Your task to perform on an android device: Show the shopping cart on amazon.com. Image 0: 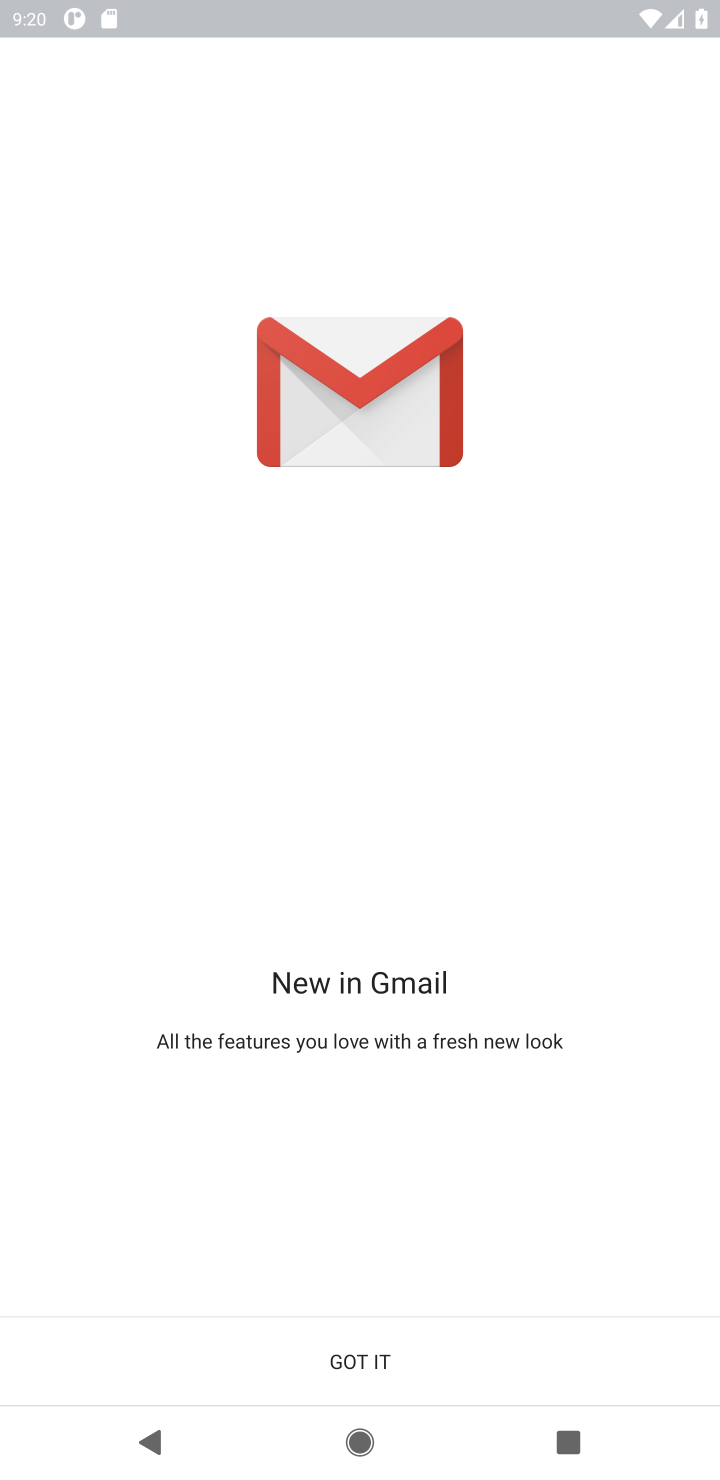
Step 0: press home button
Your task to perform on an android device: Show the shopping cart on amazon.com. Image 1: 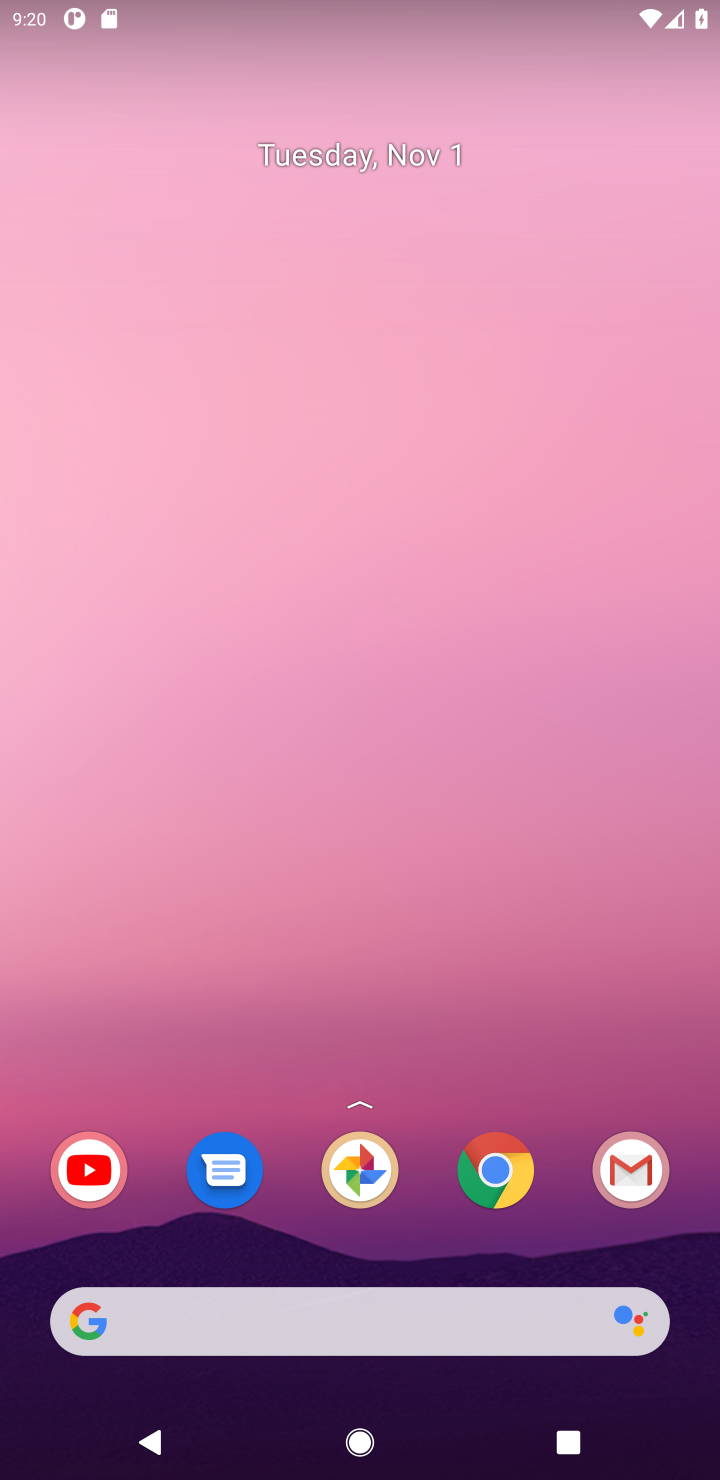
Step 1: click (527, 1183)
Your task to perform on an android device: Show the shopping cart on amazon.com. Image 2: 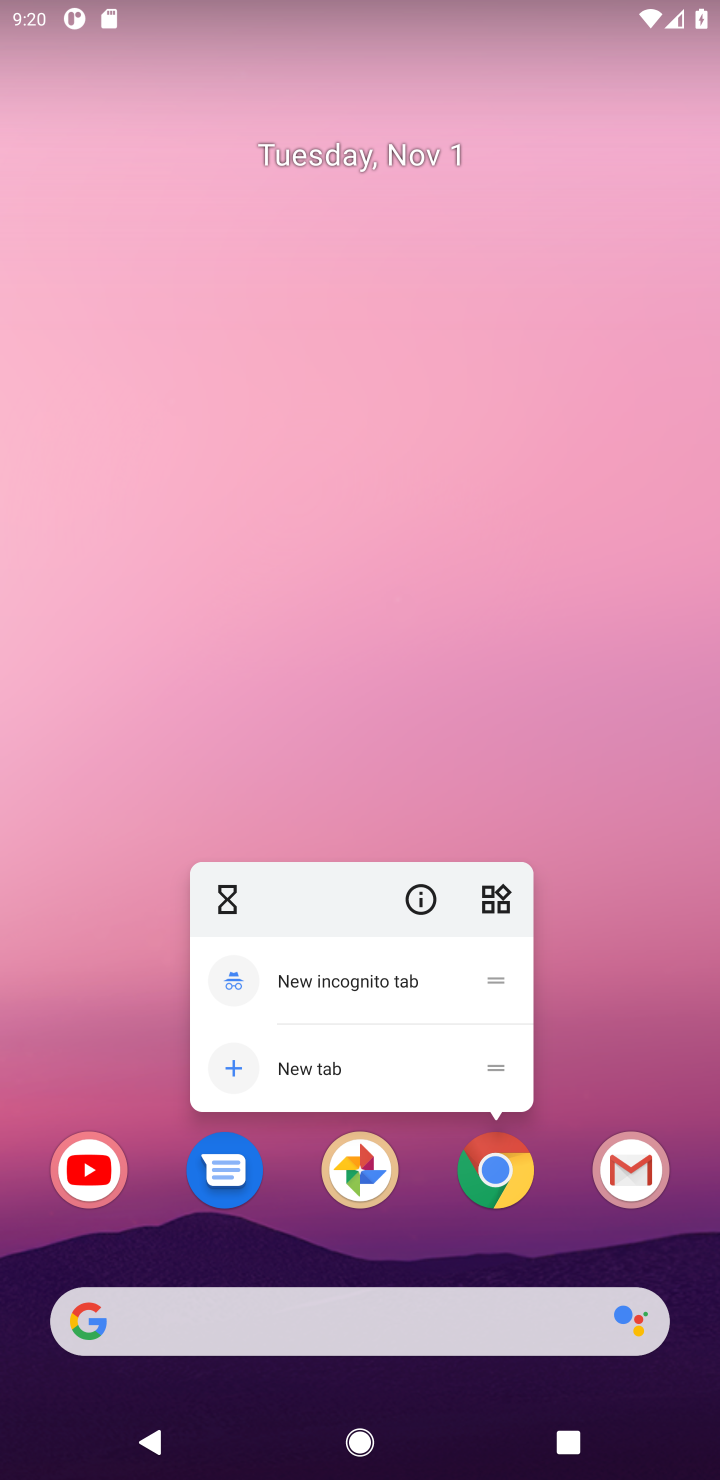
Step 2: click (500, 1184)
Your task to perform on an android device: Show the shopping cart on amazon.com. Image 3: 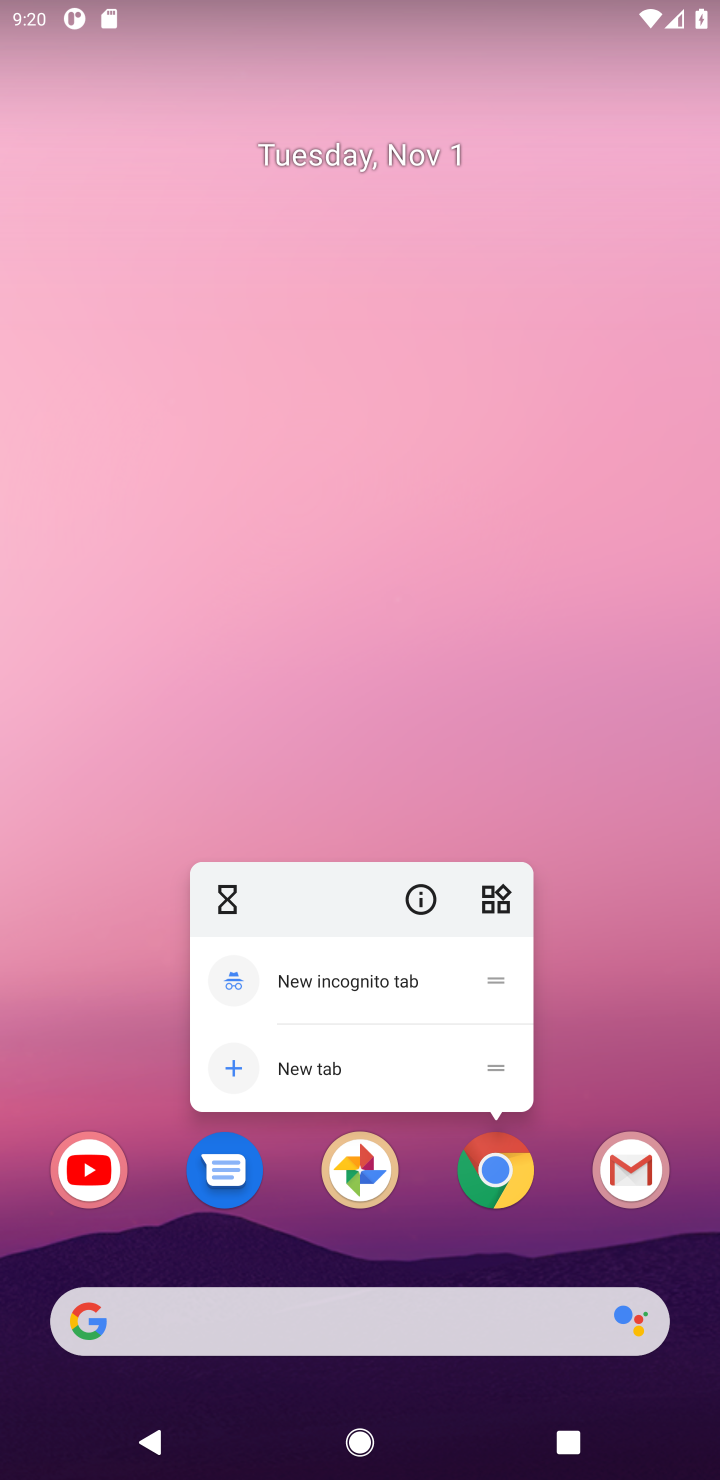
Step 3: click (497, 1193)
Your task to perform on an android device: Show the shopping cart on amazon.com. Image 4: 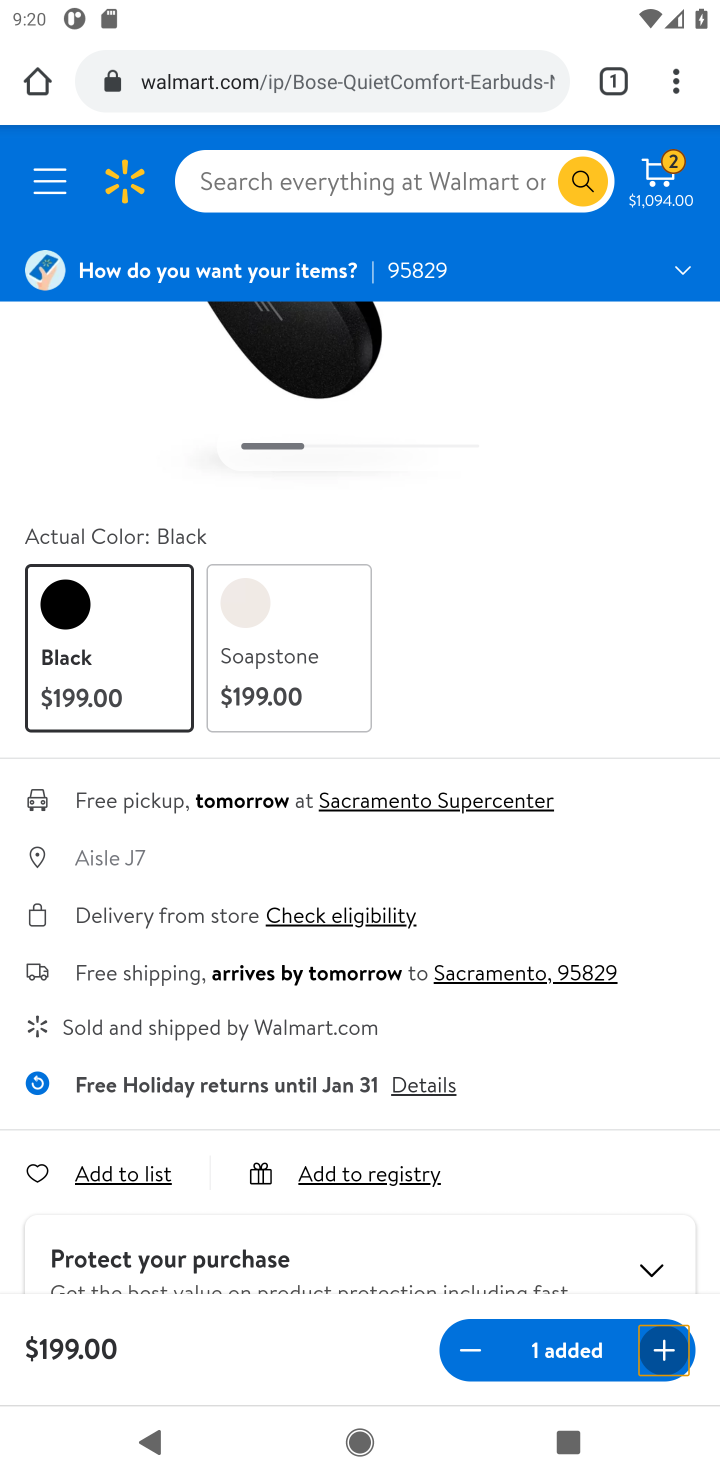
Step 4: click (296, 91)
Your task to perform on an android device: Show the shopping cart on amazon.com. Image 5: 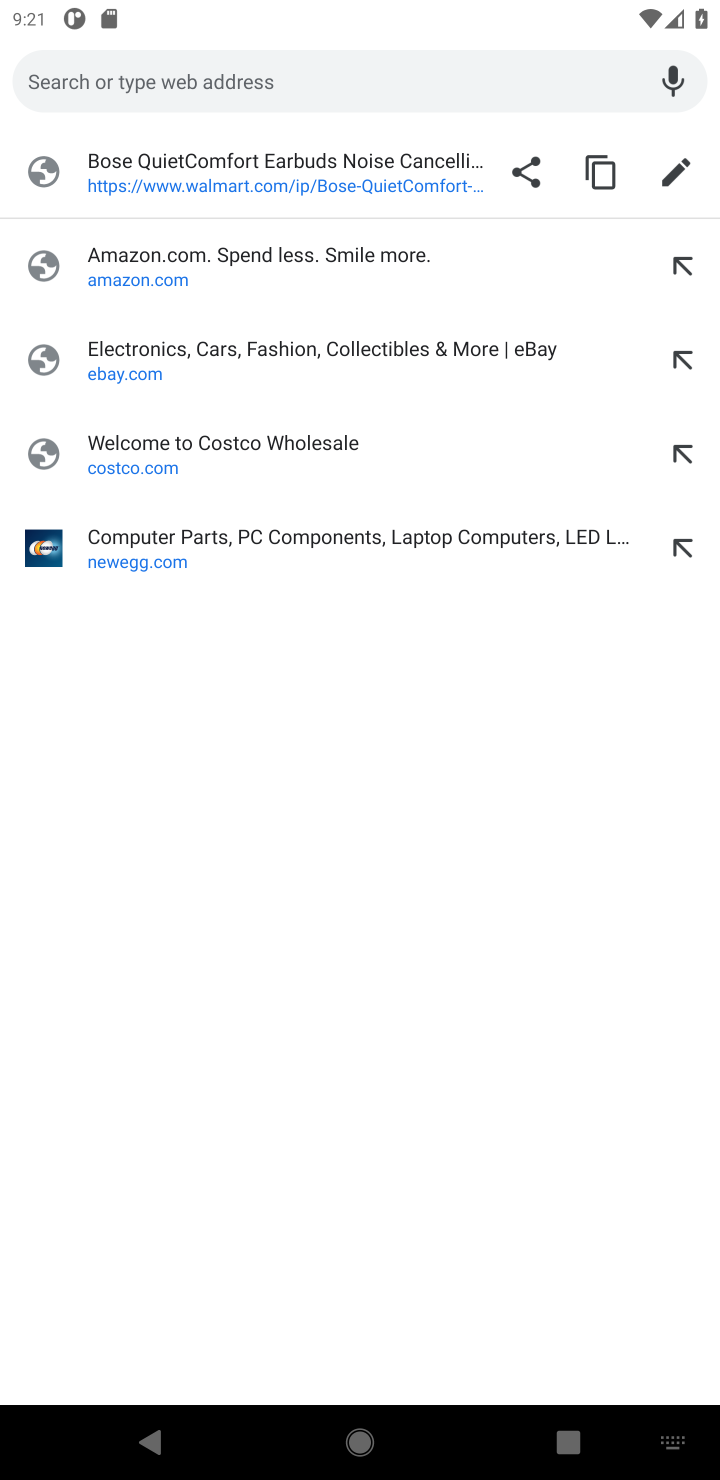
Step 5: type "amazon.com"
Your task to perform on an android device: Show the shopping cart on amazon.com. Image 6: 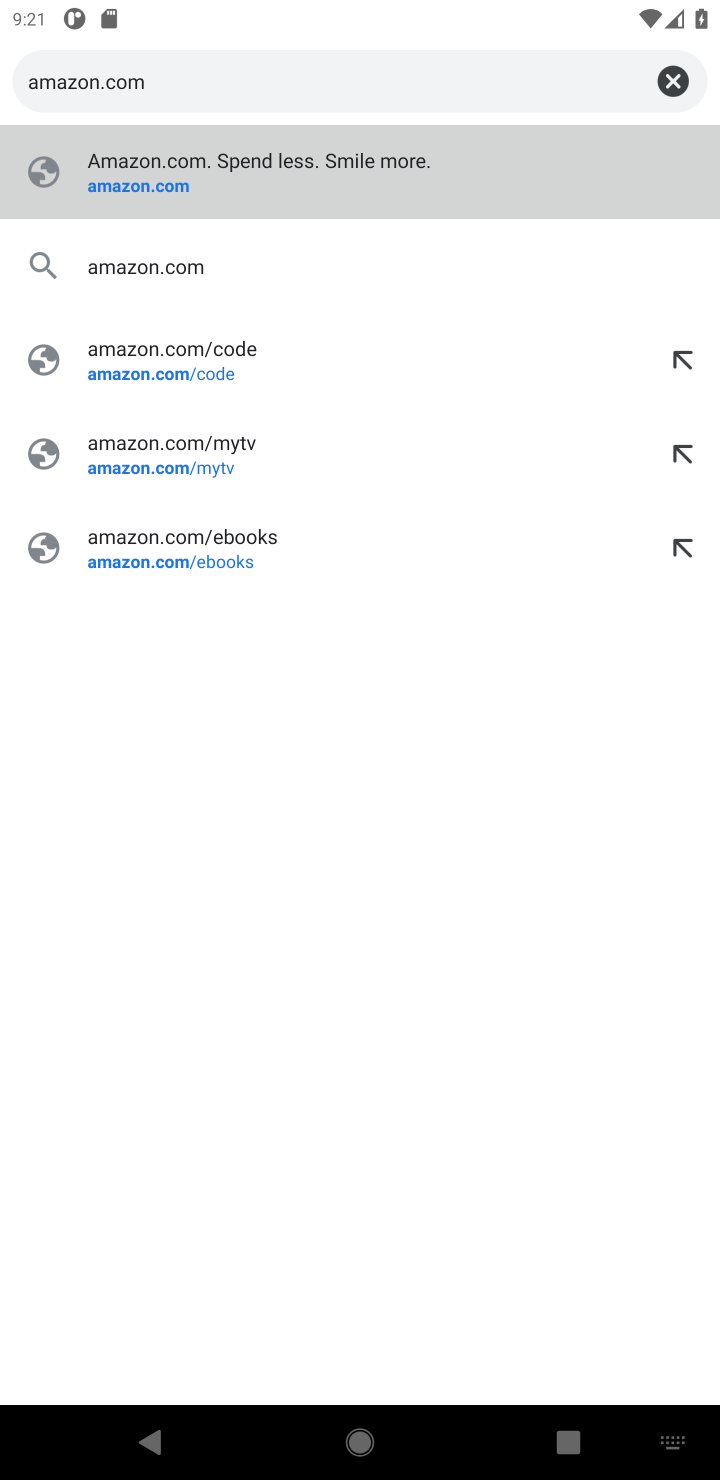
Step 6: type ""
Your task to perform on an android device: Show the shopping cart on amazon.com. Image 7: 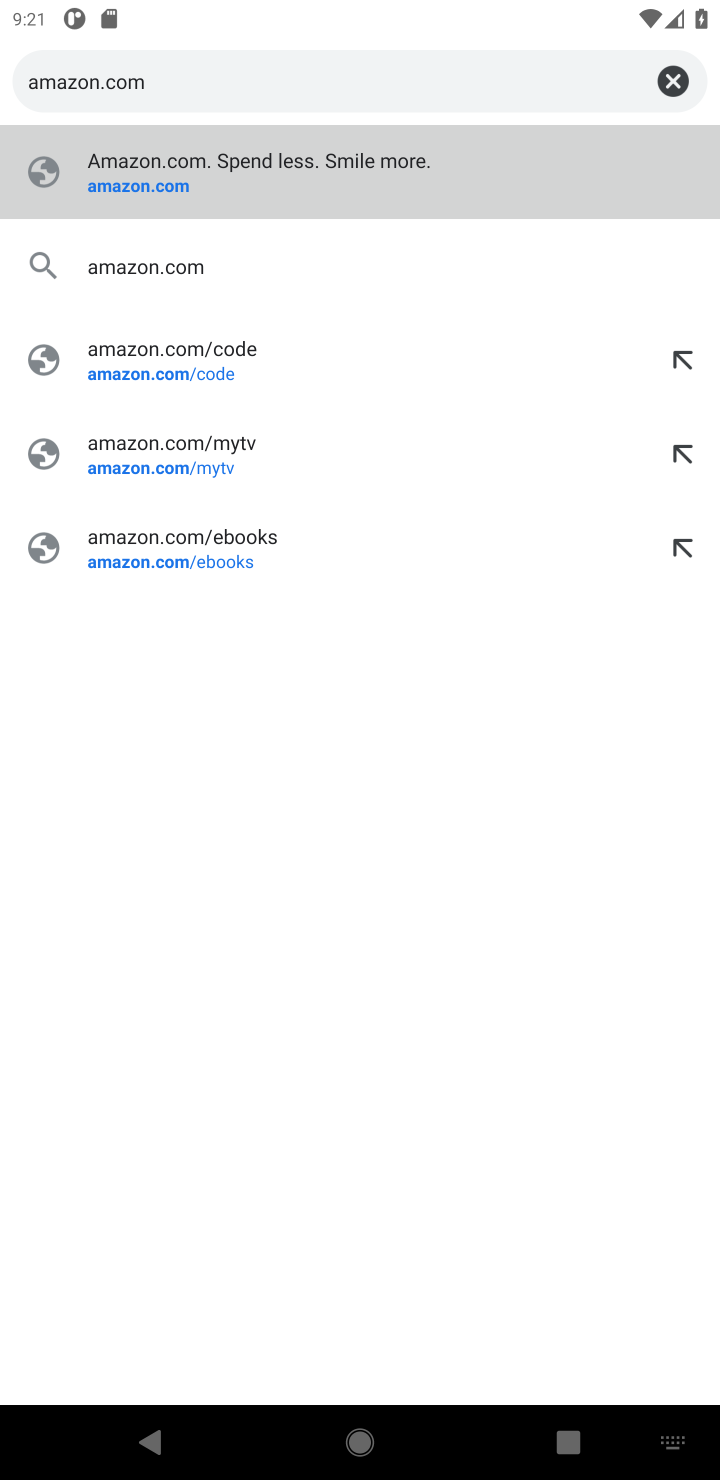
Step 7: press enter
Your task to perform on an android device: Show the shopping cart on amazon.com. Image 8: 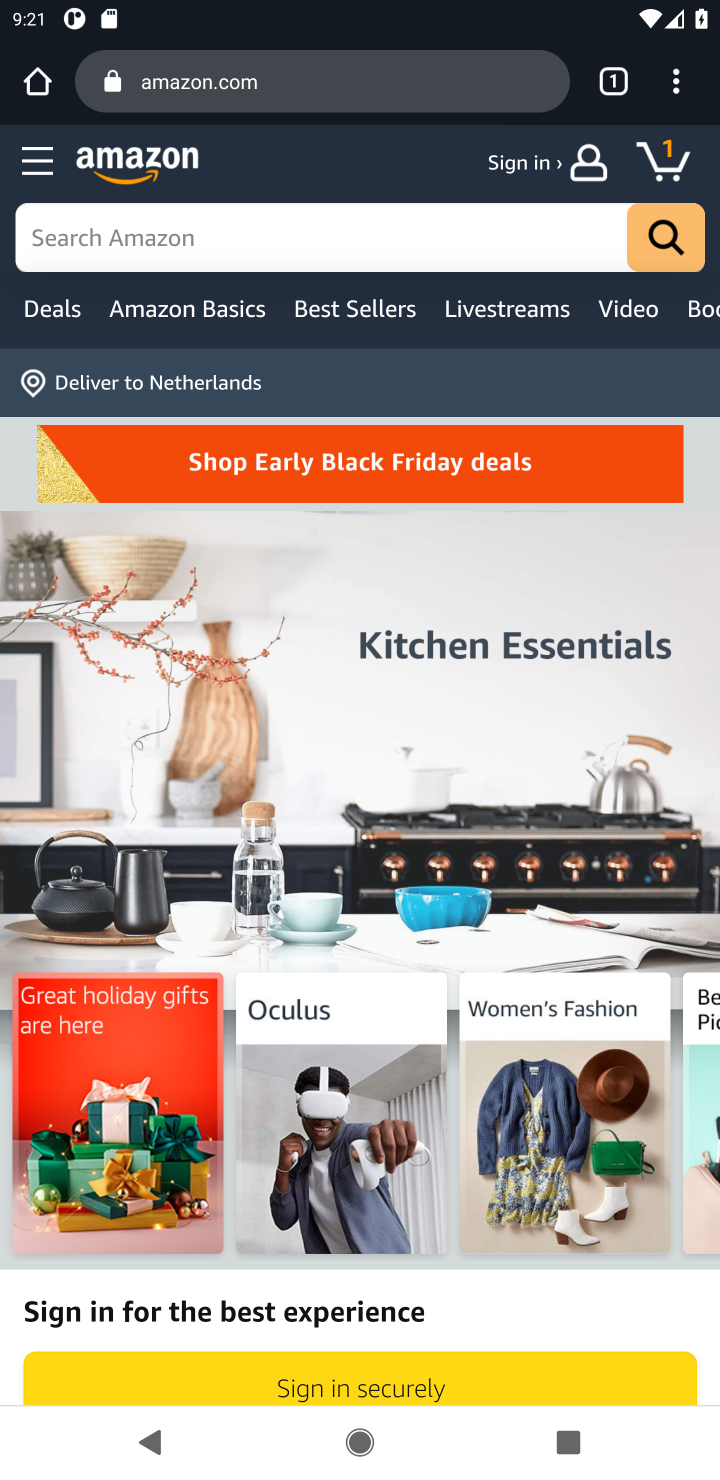
Step 8: click (669, 160)
Your task to perform on an android device: Show the shopping cart on amazon.com. Image 9: 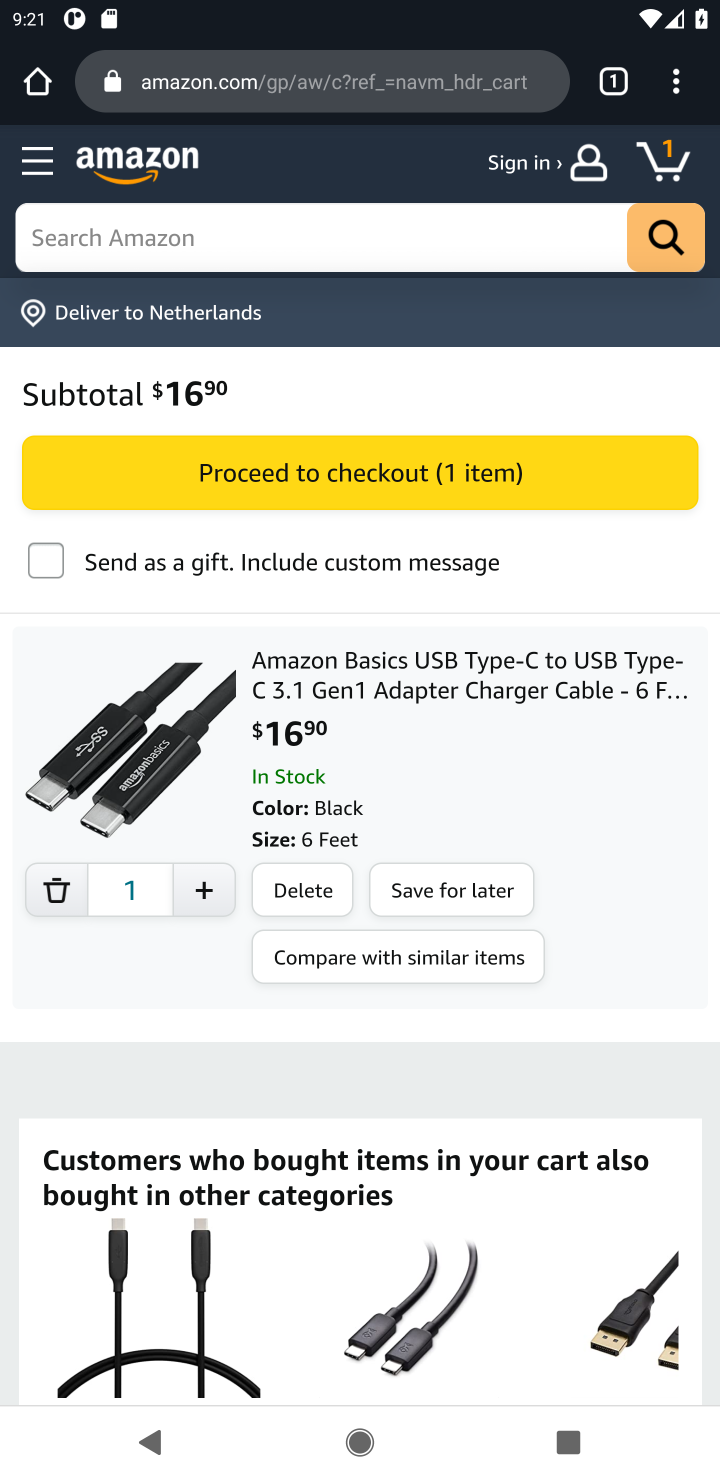
Step 9: task complete